Your task to perform on an android device: set default search engine in the chrome app Image 0: 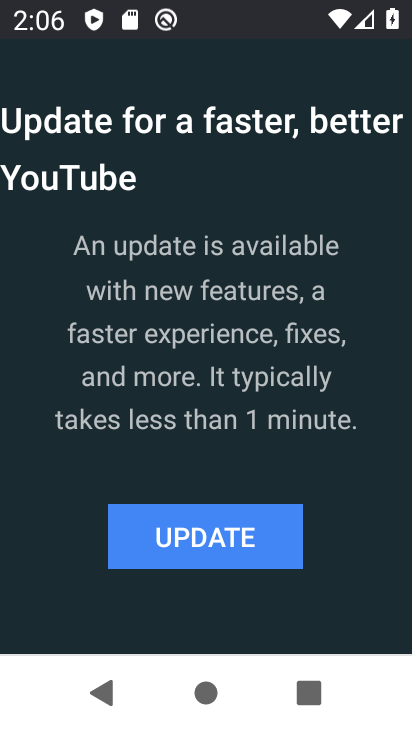
Step 0: press home button
Your task to perform on an android device: set default search engine in the chrome app Image 1: 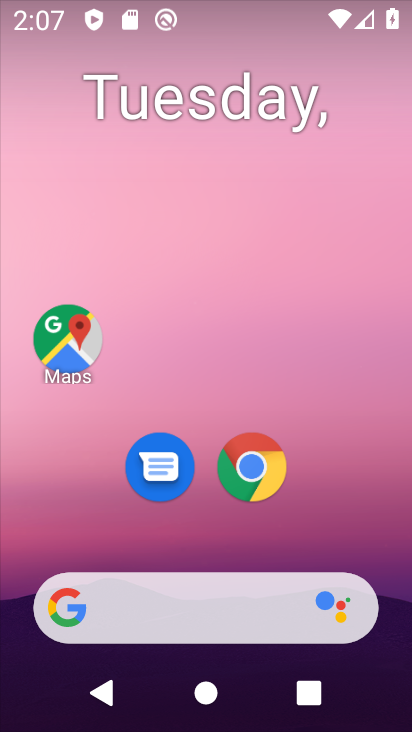
Step 1: drag from (380, 549) to (381, 220)
Your task to perform on an android device: set default search engine in the chrome app Image 2: 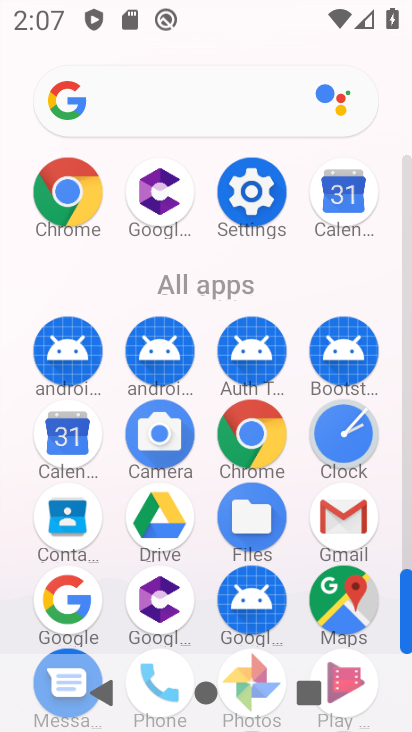
Step 2: click (273, 435)
Your task to perform on an android device: set default search engine in the chrome app Image 3: 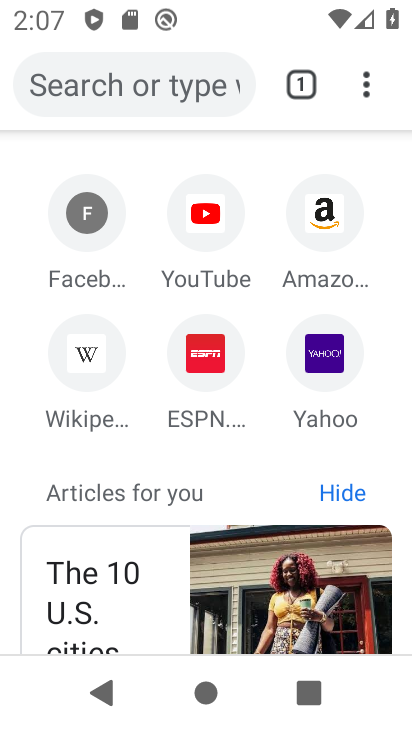
Step 3: click (365, 94)
Your task to perform on an android device: set default search engine in the chrome app Image 4: 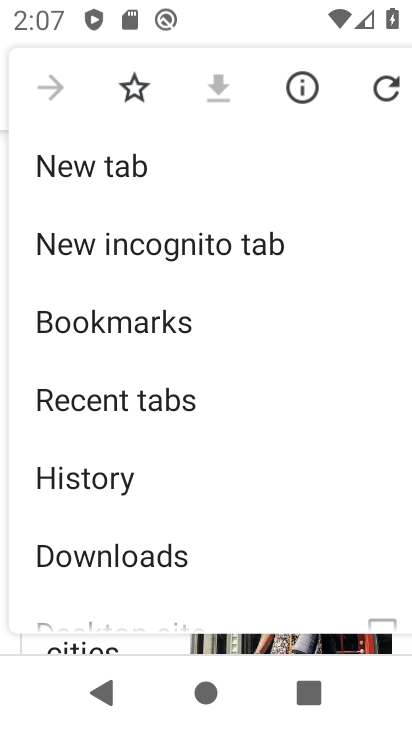
Step 4: drag from (332, 443) to (325, 318)
Your task to perform on an android device: set default search engine in the chrome app Image 5: 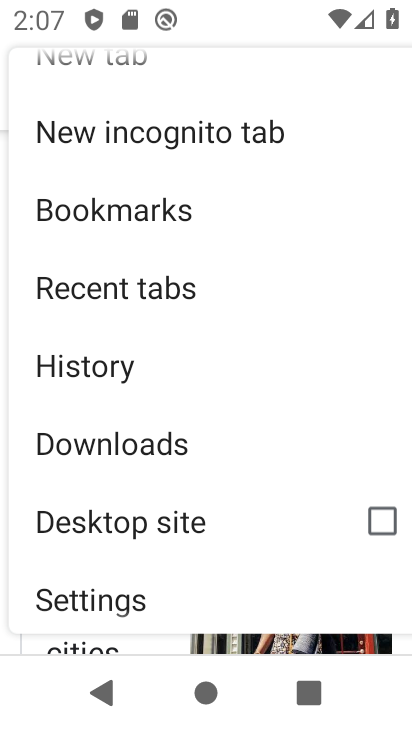
Step 5: drag from (306, 507) to (320, 323)
Your task to perform on an android device: set default search engine in the chrome app Image 6: 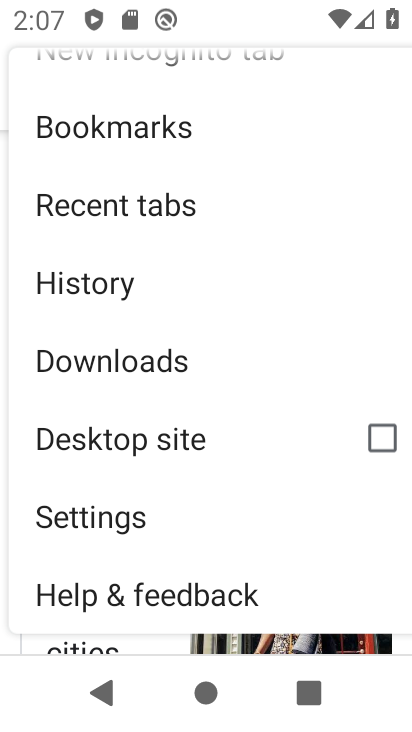
Step 6: click (146, 529)
Your task to perform on an android device: set default search engine in the chrome app Image 7: 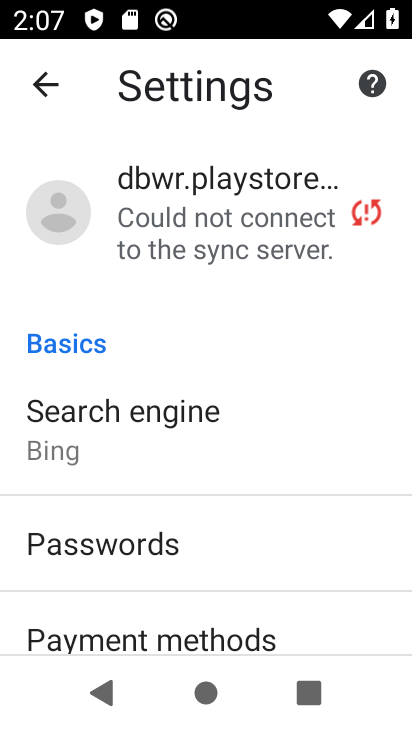
Step 7: drag from (278, 570) to (289, 487)
Your task to perform on an android device: set default search engine in the chrome app Image 8: 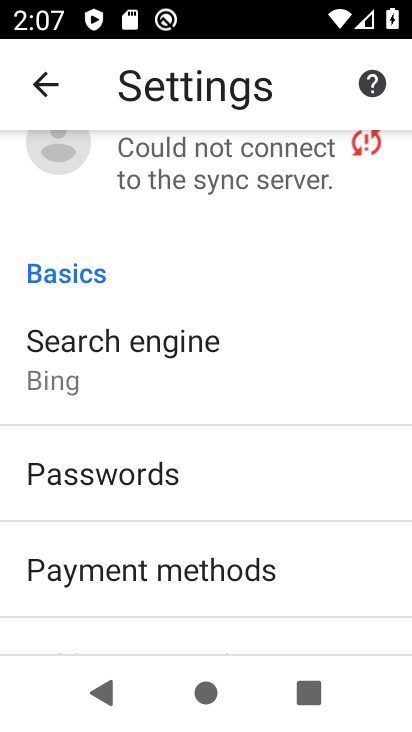
Step 8: drag from (340, 608) to (346, 513)
Your task to perform on an android device: set default search engine in the chrome app Image 9: 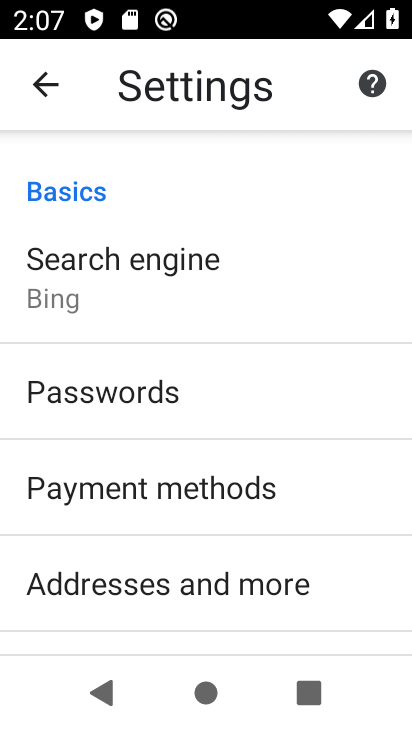
Step 9: drag from (339, 578) to (340, 482)
Your task to perform on an android device: set default search engine in the chrome app Image 10: 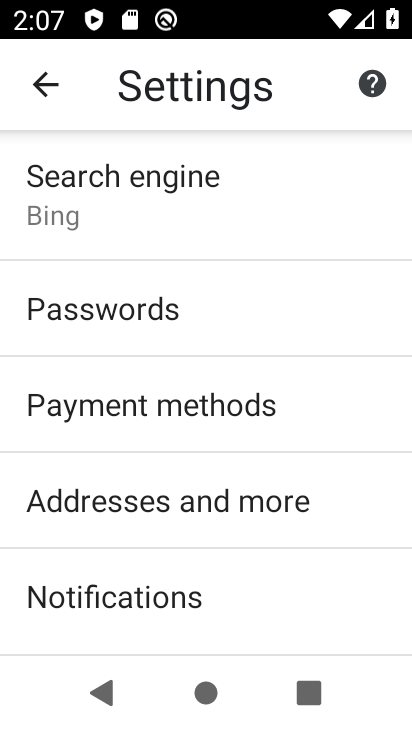
Step 10: drag from (335, 553) to (344, 474)
Your task to perform on an android device: set default search engine in the chrome app Image 11: 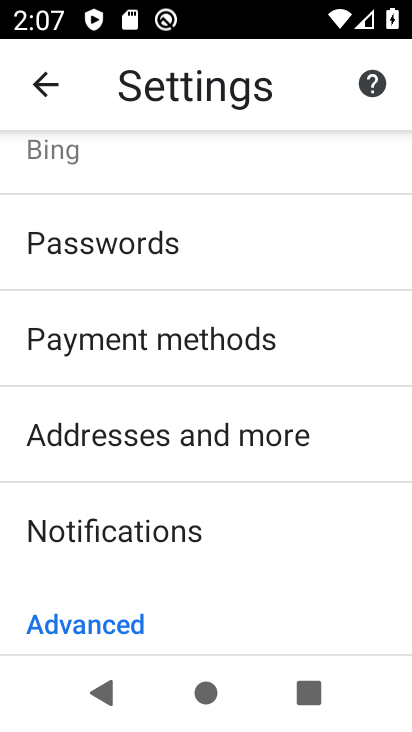
Step 11: drag from (350, 562) to (354, 485)
Your task to perform on an android device: set default search engine in the chrome app Image 12: 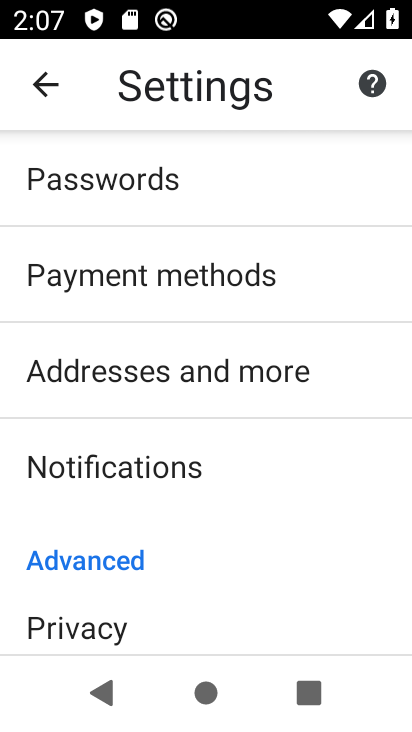
Step 12: drag from (348, 570) to (339, 462)
Your task to perform on an android device: set default search engine in the chrome app Image 13: 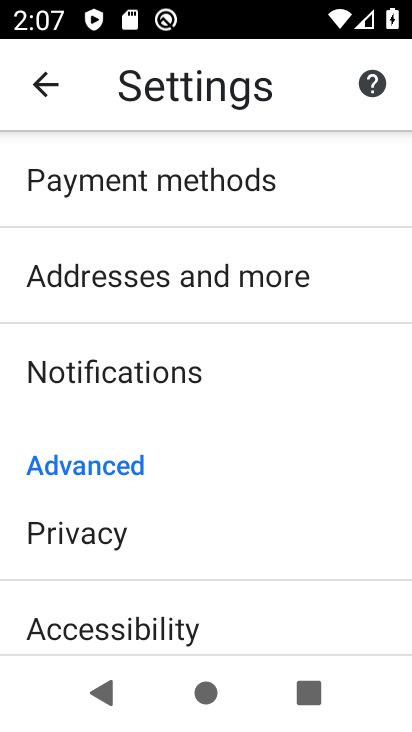
Step 13: drag from (345, 569) to (348, 466)
Your task to perform on an android device: set default search engine in the chrome app Image 14: 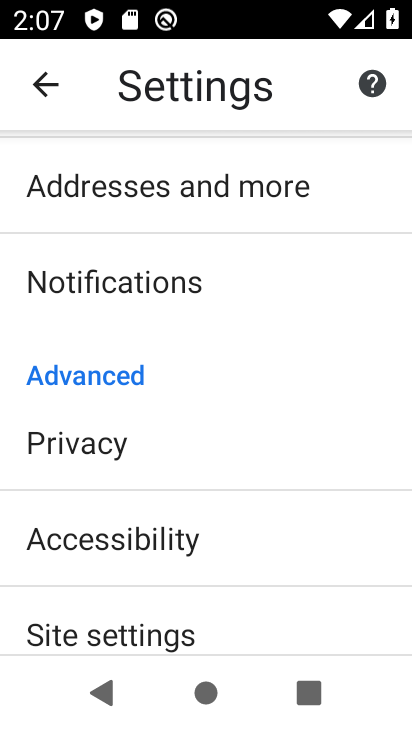
Step 14: drag from (341, 553) to (341, 446)
Your task to perform on an android device: set default search engine in the chrome app Image 15: 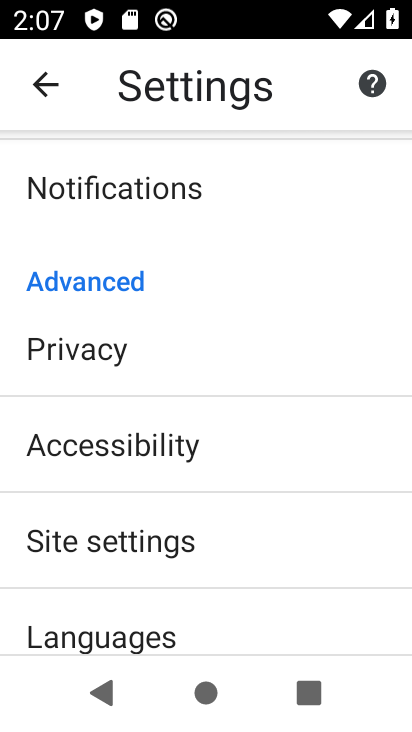
Step 15: drag from (308, 305) to (296, 422)
Your task to perform on an android device: set default search engine in the chrome app Image 16: 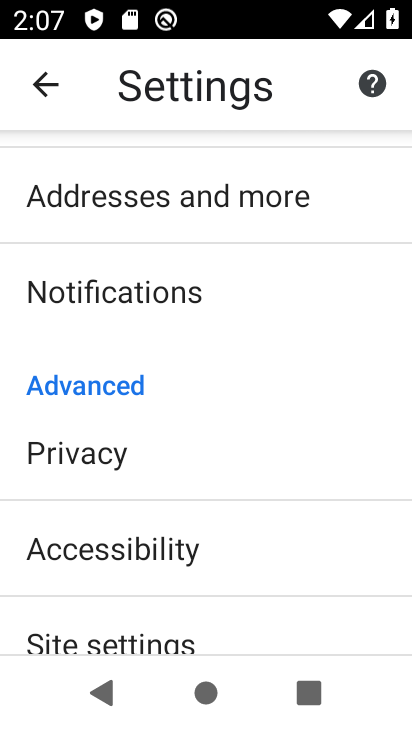
Step 16: drag from (287, 292) to (287, 417)
Your task to perform on an android device: set default search engine in the chrome app Image 17: 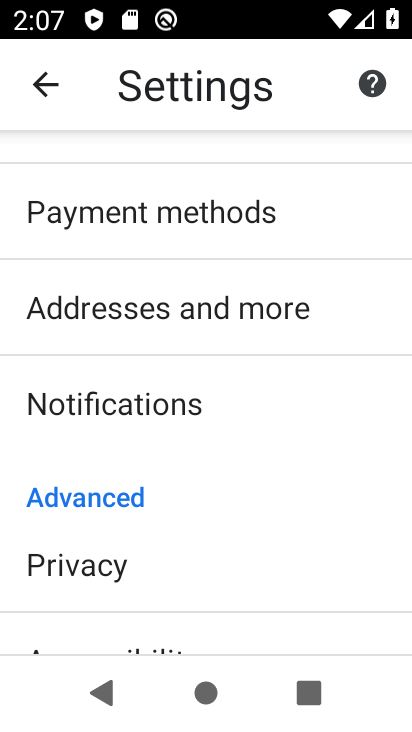
Step 17: drag from (321, 230) to (326, 409)
Your task to perform on an android device: set default search engine in the chrome app Image 18: 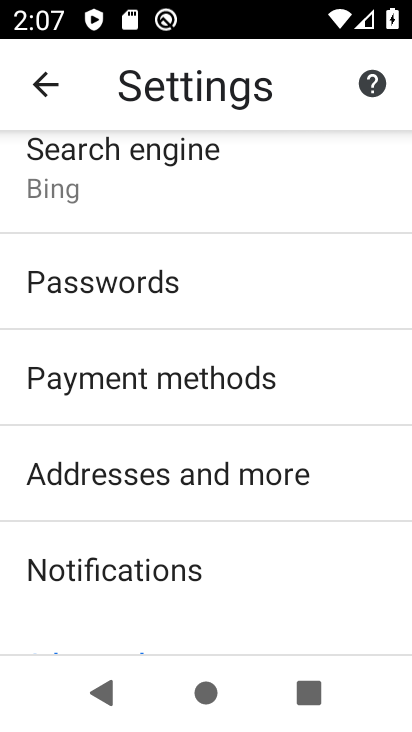
Step 18: drag from (280, 208) to (274, 349)
Your task to perform on an android device: set default search engine in the chrome app Image 19: 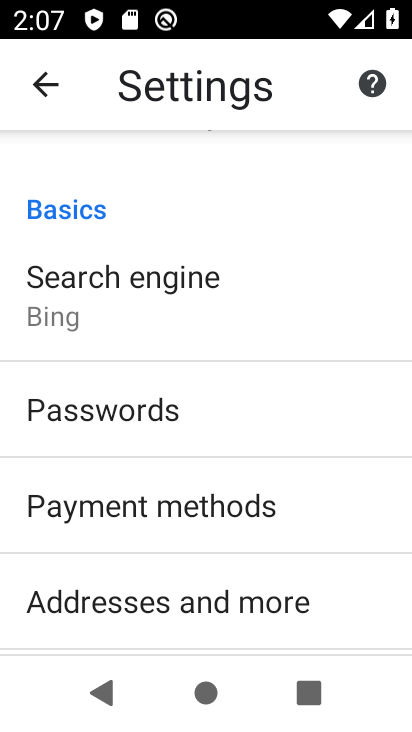
Step 19: click (109, 312)
Your task to perform on an android device: set default search engine in the chrome app Image 20: 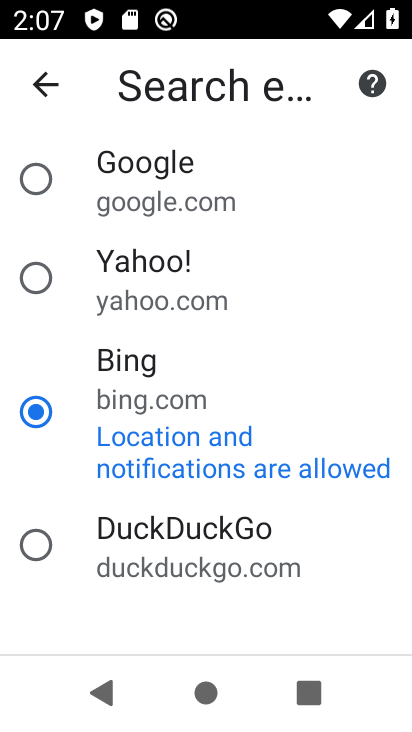
Step 20: click (46, 182)
Your task to perform on an android device: set default search engine in the chrome app Image 21: 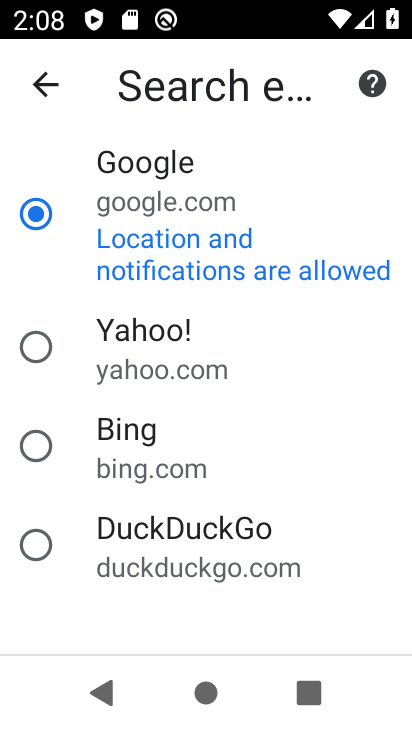
Step 21: task complete